Your task to perform on an android device: turn off notifications settings in the gmail app Image 0: 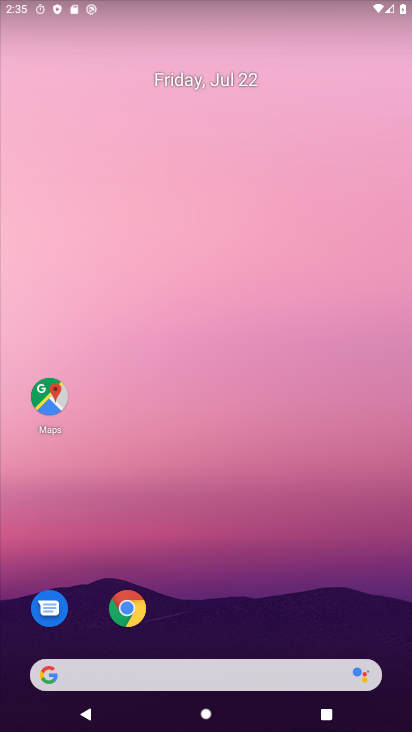
Step 0: drag from (157, 655) to (184, 240)
Your task to perform on an android device: turn off notifications settings in the gmail app Image 1: 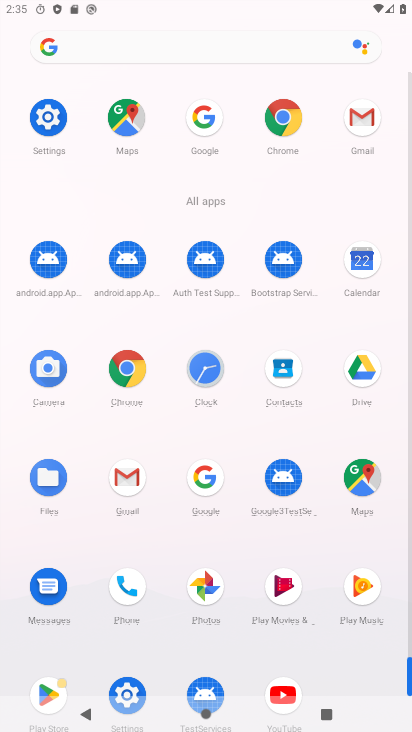
Step 1: click (132, 477)
Your task to perform on an android device: turn off notifications settings in the gmail app Image 2: 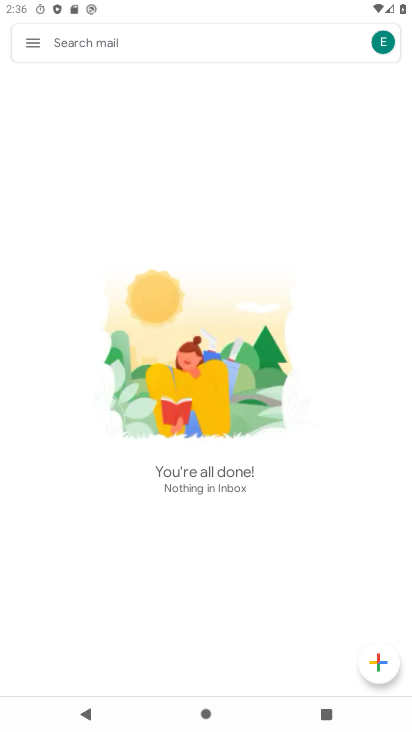
Step 2: click (37, 39)
Your task to perform on an android device: turn off notifications settings in the gmail app Image 3: 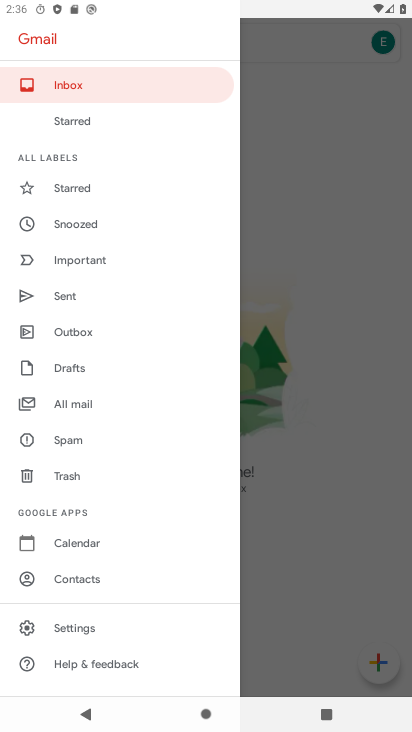
Step 3: click (73, 623)
Your task to perform on an android device: turn off notifications settings in the gmail app Image 4: 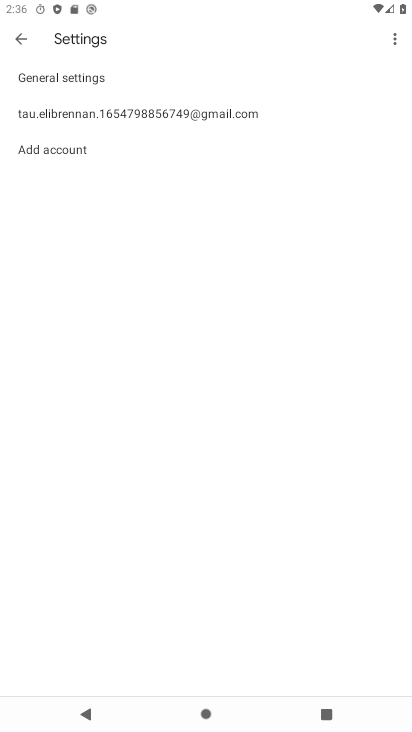
Step 4: click (100, 106)
Your task to perform on an android device: turn off notifications settings in the gmail app Image 5: 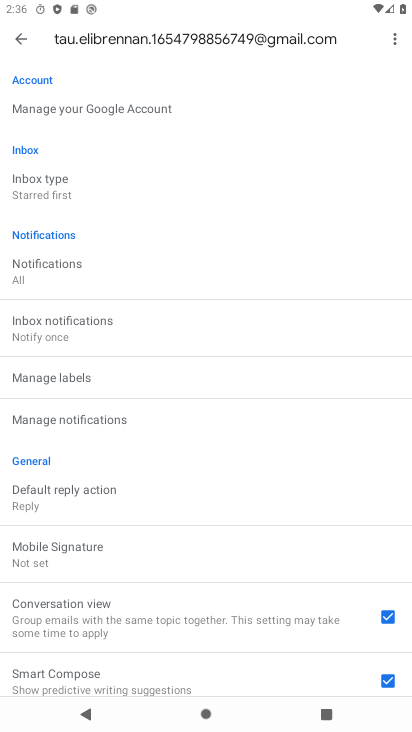
Step 5: click (74, 411)
Your task to perform on an android device: turn off notifications settings in the gmail app Image 6: 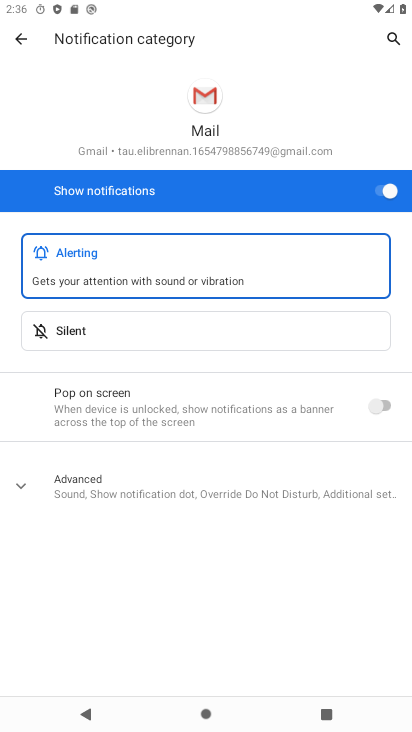
Step 6: click (377, 191)
Your task to perform on an android device: turn off notifications settings in the gmail app Image 7: 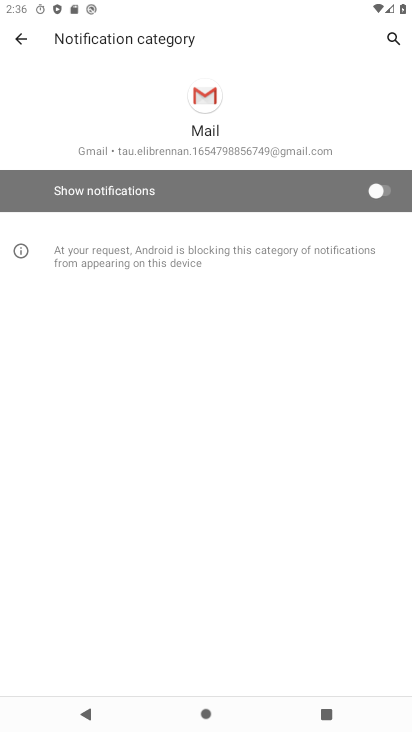
Step 7: task complete